Your task to perform on an android device: Open the web browser Image 0: 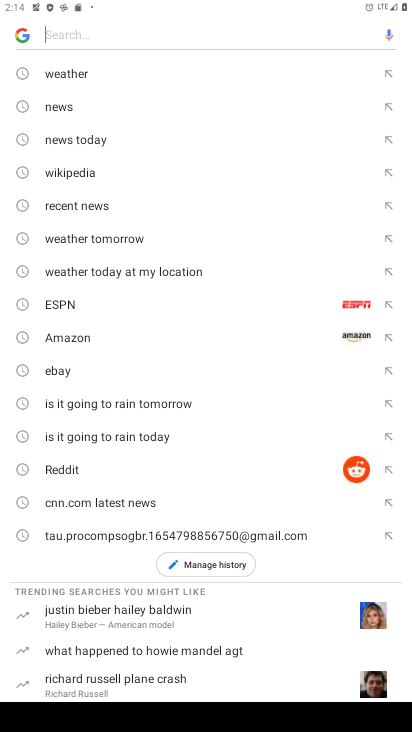
Step 0: press home button
Your task to perform on an android device: Open the web browser Image 1: 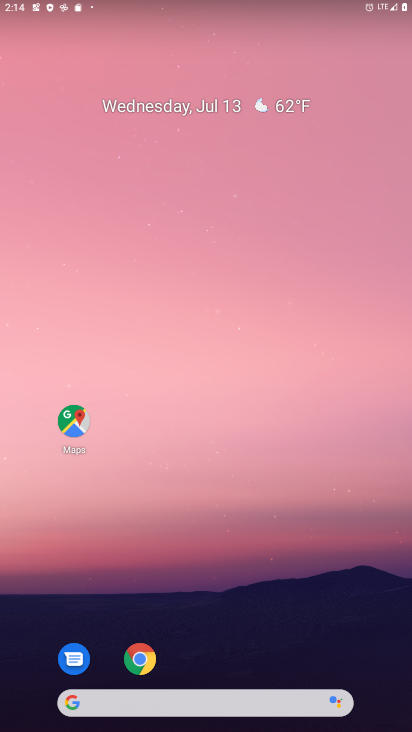
Step 1: drag from (207, 729) to (204, 85)
Your task to perform on an android device: Open the web browser Image 2: 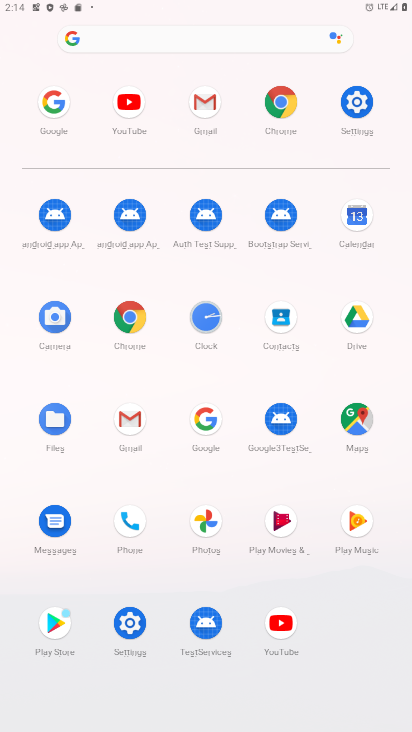
Step 2: click (283, 106)
Your task to perform on an android device: Open the web browser Image 3: 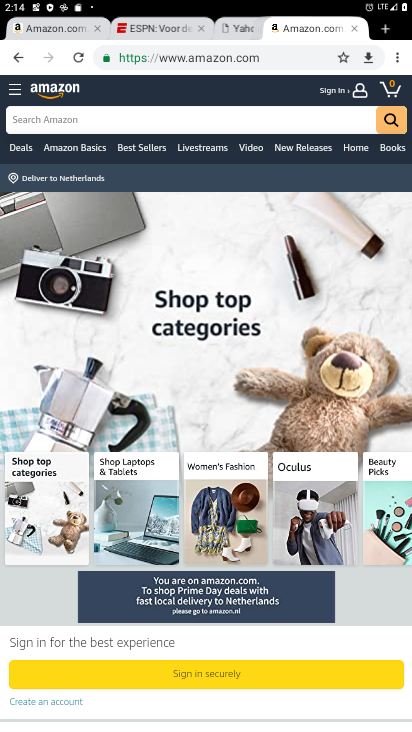
Step 3: task complete